Your task to perform on an android device: How do I get to the nearest Verizon Store? Image 0: 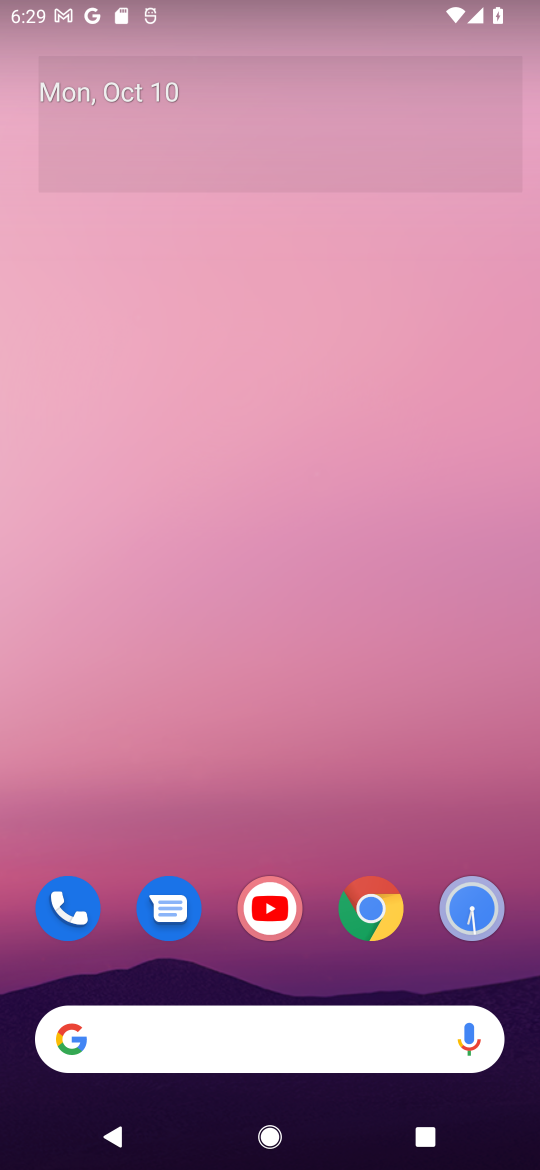
Step 0: drag from (308, 978) to (191, 148)
Your task to perform on an android device: How do I get to the nearest Verizon Store? Image 1: 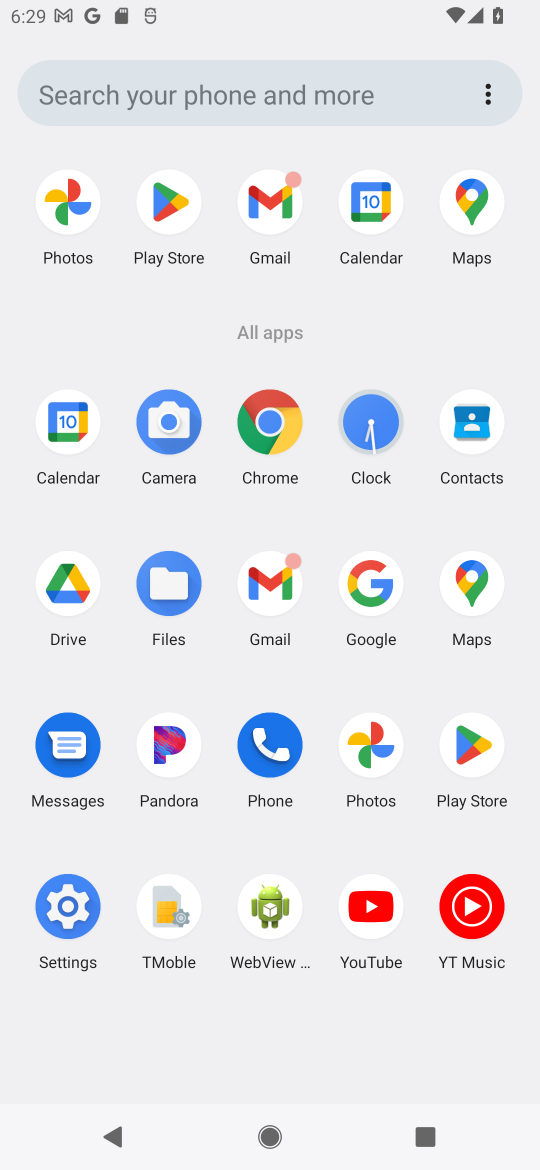
Step 1: click (272, 416)
Your task to perform on an android device: How do I get to the nearest Verizon Store? Image 2: 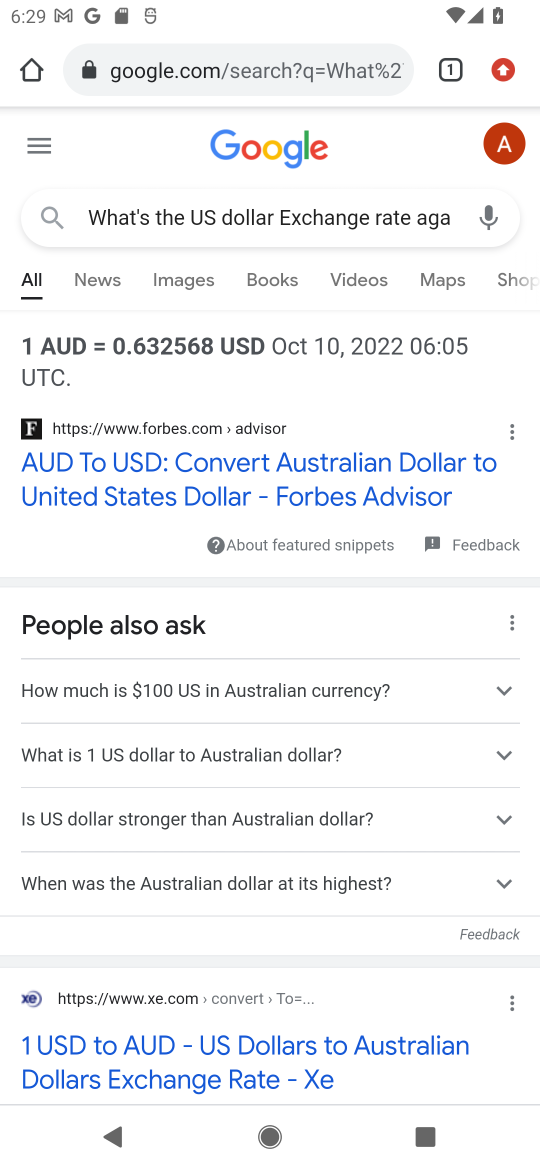
Step 2: click (249, 56)
Your task to perform on an android device: How do I get to the nearest Verizon Store? Image 3: 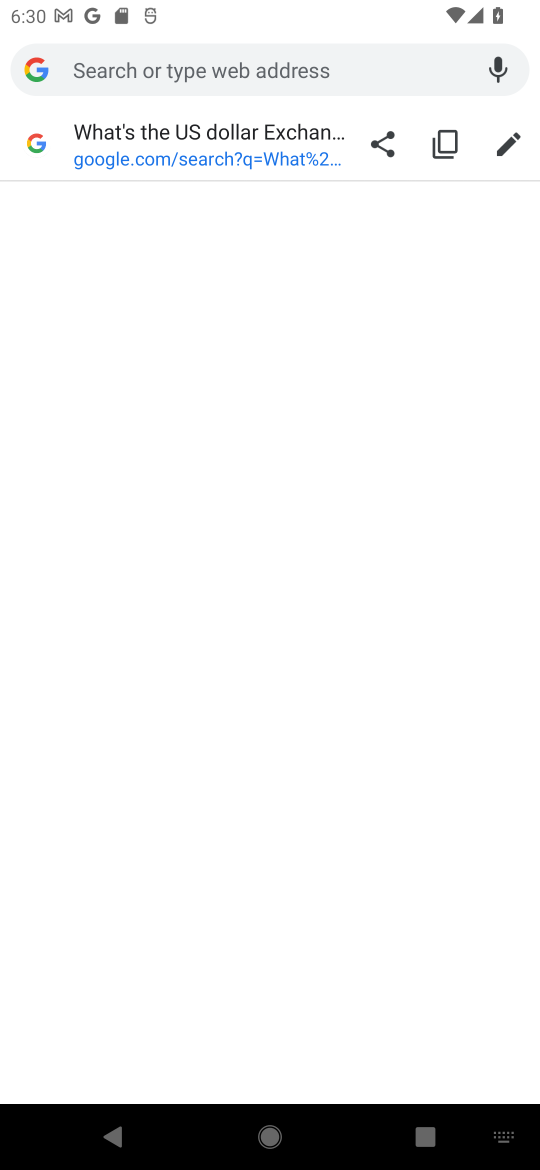
Step 3: type "How do I get to the nearest Verizon Store?"
Your task to perform on an android device: How do I get to the nearest Verizon Store? Image 4: 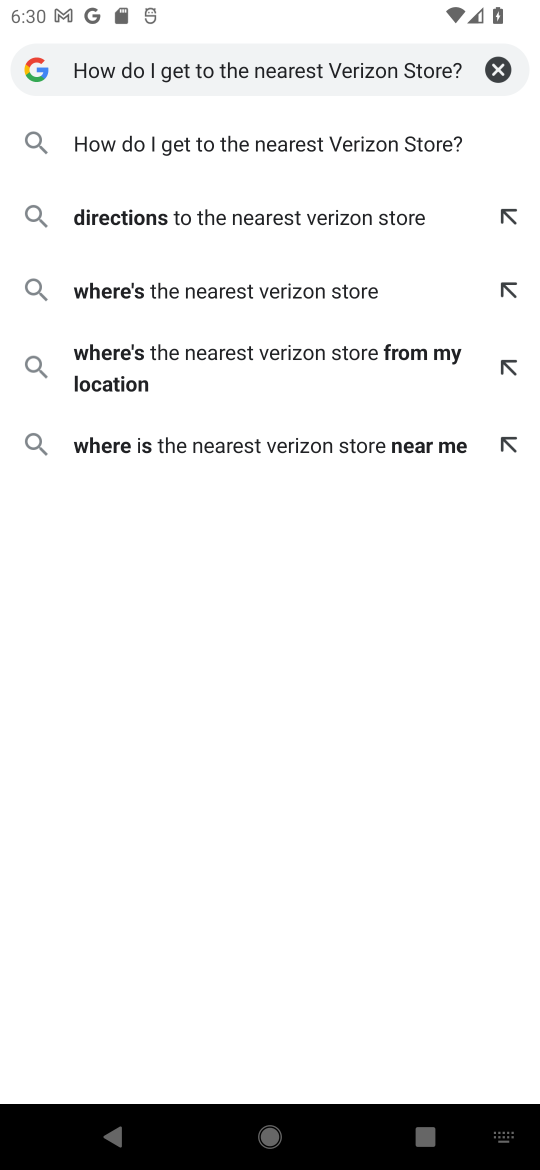
Step 4: press enter
Your task to perform on an android device: How do I get to the nearest Verizon Store? Image 5: 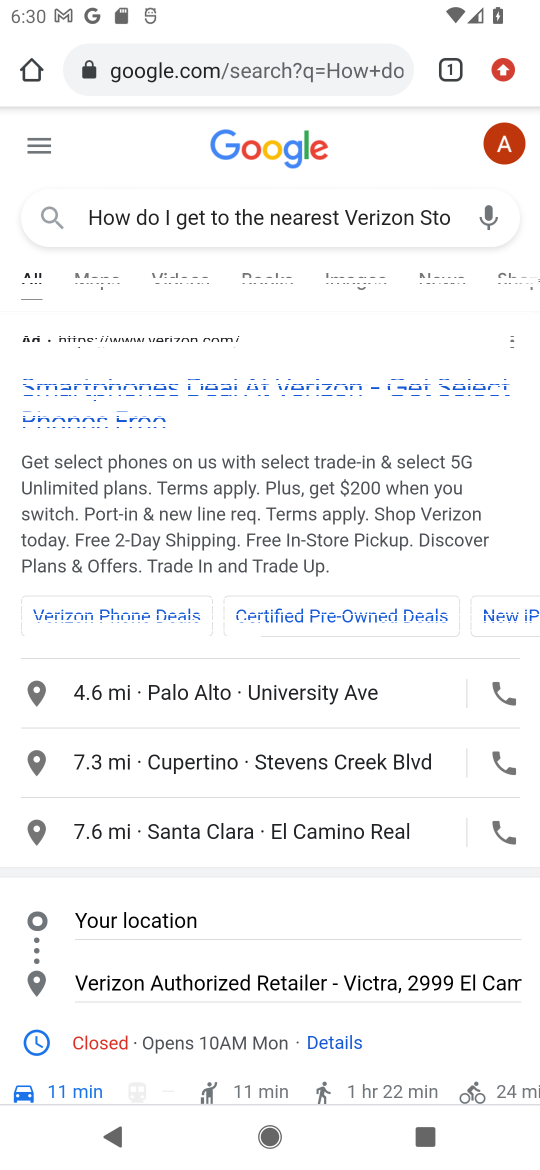
Step 5: task complete